Your task to perform on an android device: turn on bluetooth scan Image 0: 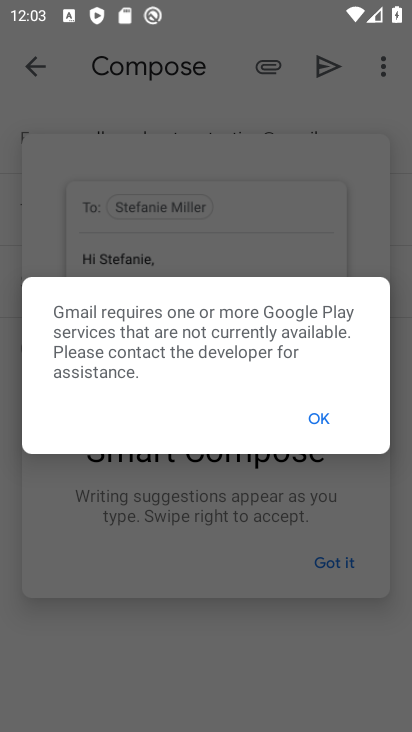
Step 0: press home button
Your task to perform on an android device: turn on bluetooth scan Image 1: 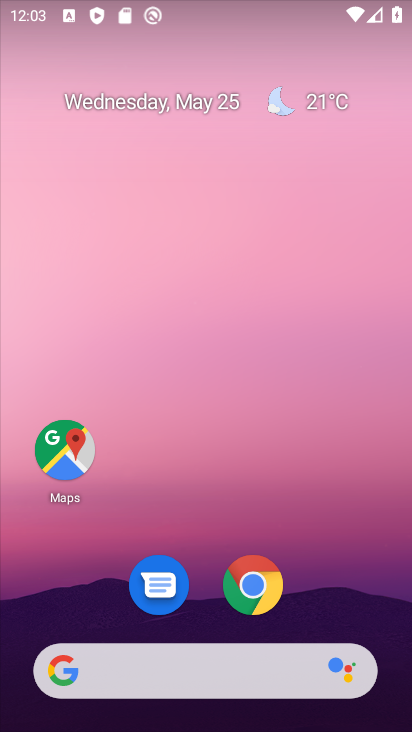
Step 1: drag from (204, 512) to (280, 16)
Your task to perform on an android device: turn on bluetooth scan Image 2: 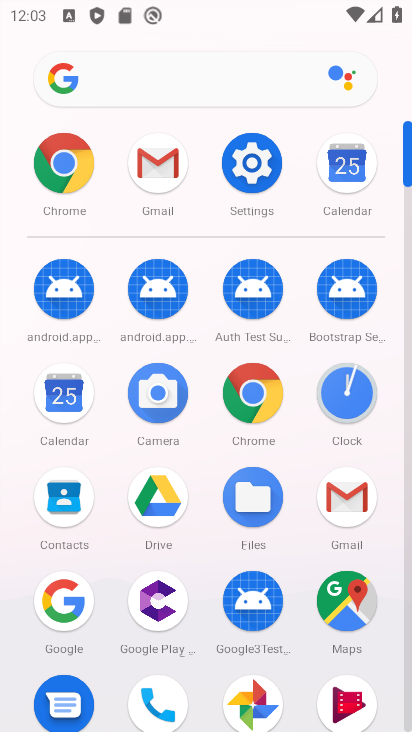
Step 2: click (256, 161)
Your task to perform on an android device: turn on bluetooth scan Image 3: 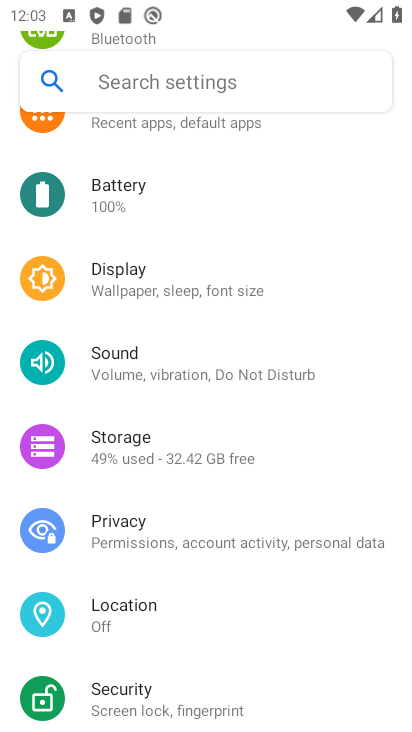
Step 3: click (200, 606)
Your task to perform on an android device: turn on bluetooth scan Image 4: 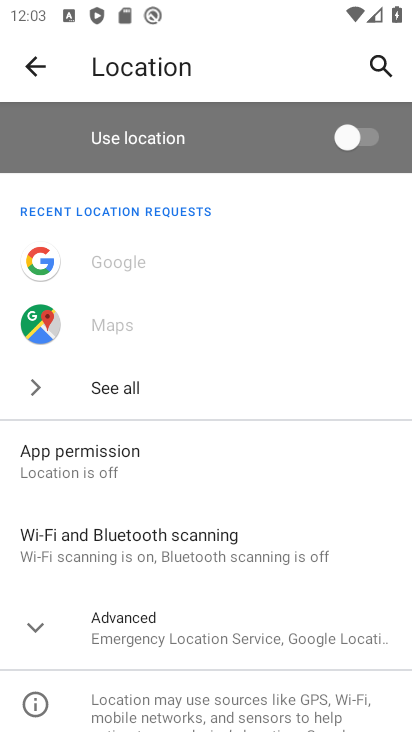
Step 4: drag from (256, 474) to (284, 214)
Your task to perform on an android device: turn on bluetooth scan Image 5: 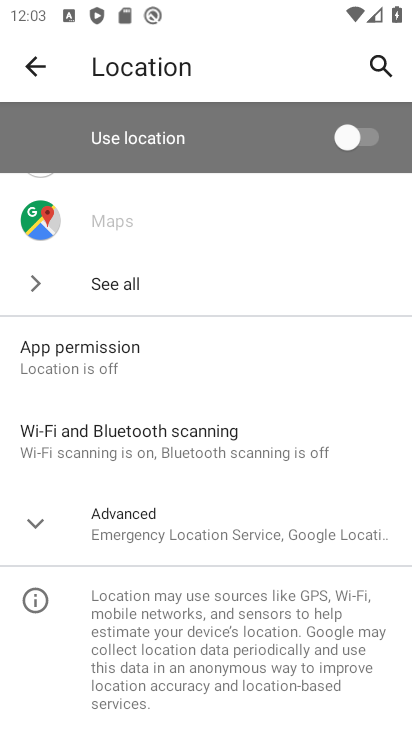
Step 5: click (259, 435)
Your task to perform on an android device: turn on bluetooth scan Image 6: 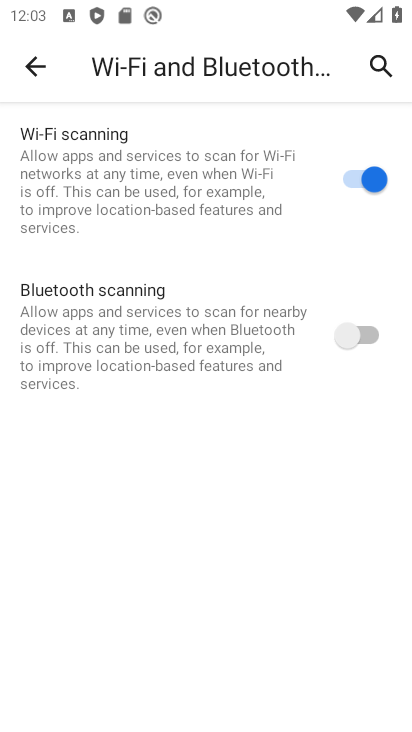
Step 6: click (356, 331)
Your task to perform on an android device: turn on bluetooth scan Image 7: 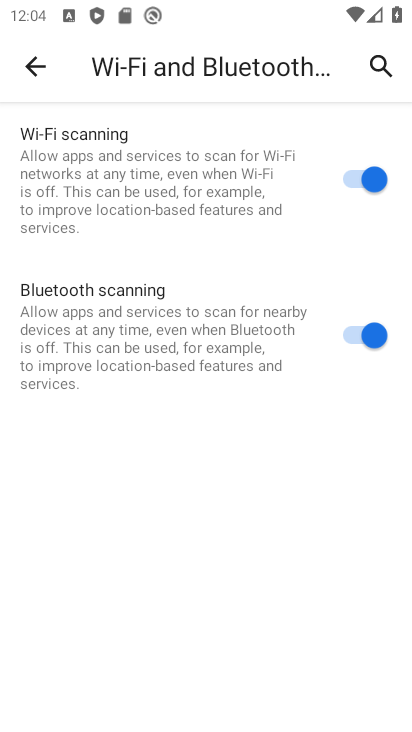
Step 7: task complete